Your task to perform on an android device: Search for "acer predator" on target.com, select the first entry, and add it to the cart. Image 0: 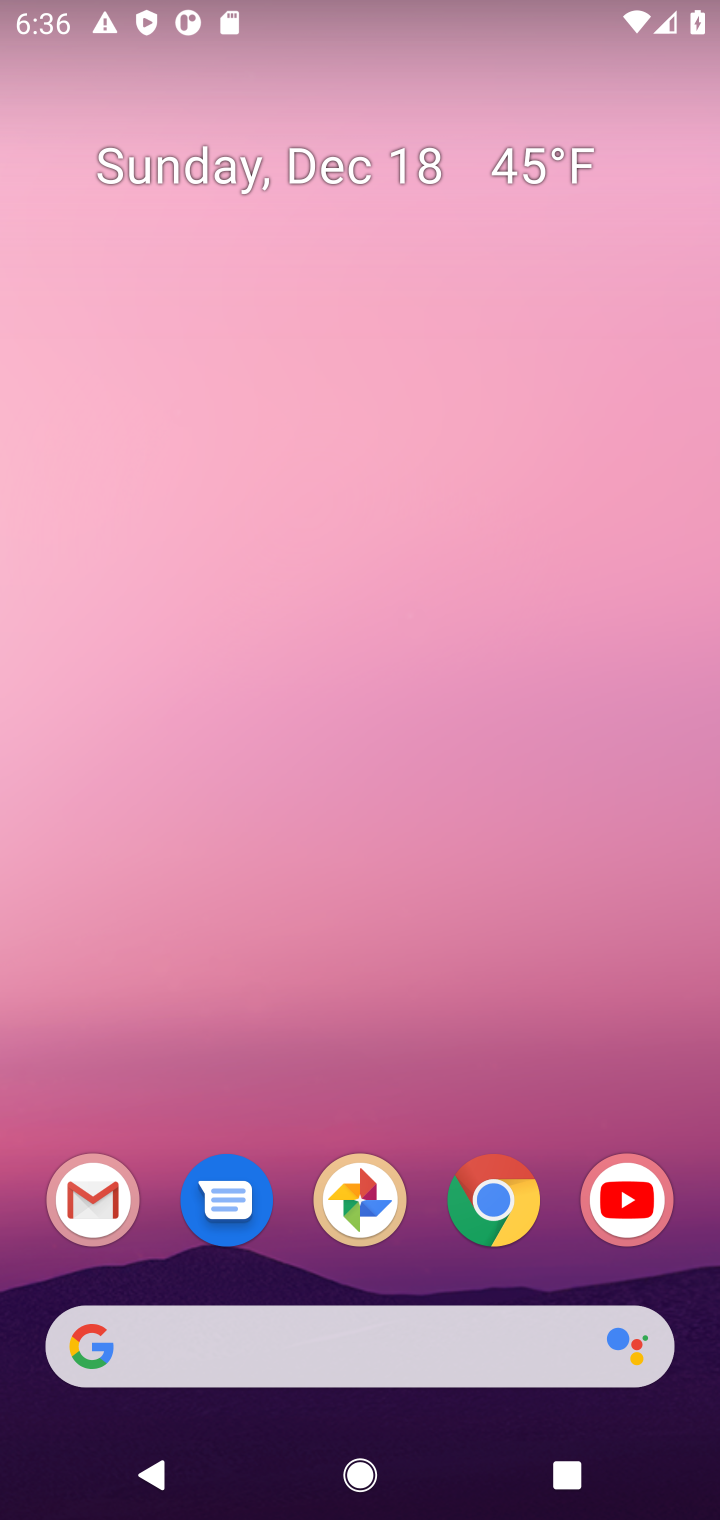
Step 0: click (495, 1198)
Your task to perform on an android device: Search for "acer predator" on target.com, select the first entry, and add it to the cart. Image 1: 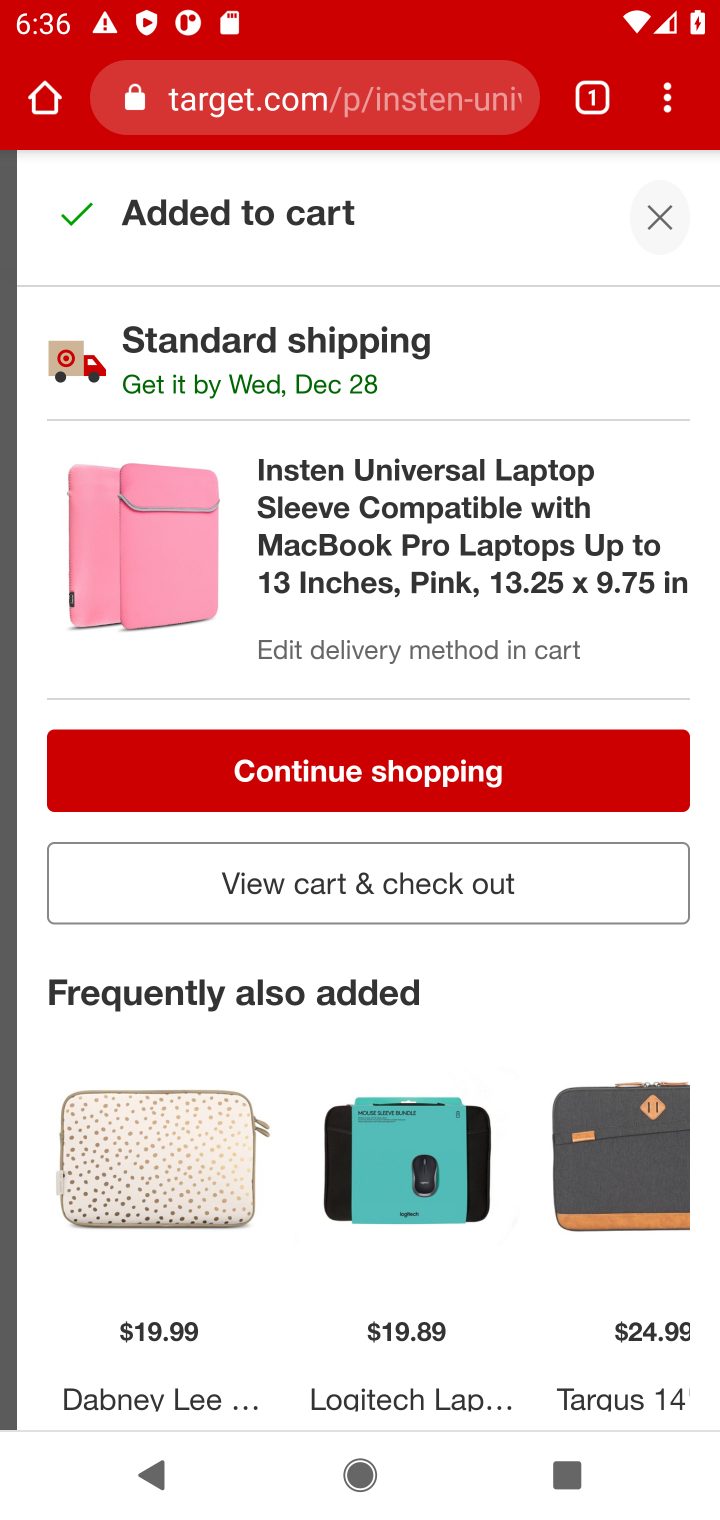
Step 1: click (672, 216)
Your task to perform on an android device: Search for "acer predator" on target.com, select the first entry, and add it to the cart. Image 2: 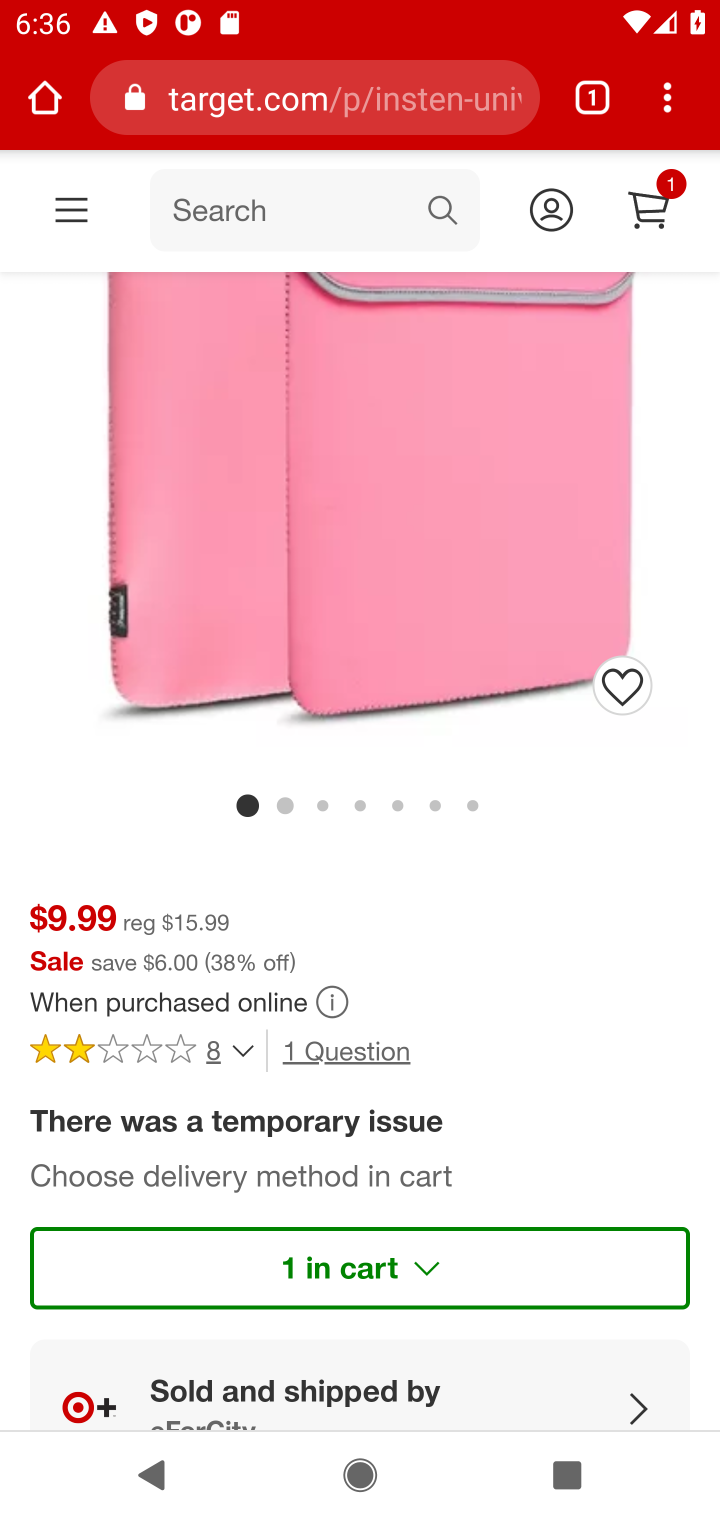
Step 2: click (220, 223)
Your task to perform on an android device: Search for "acer predator" on target.com, select the first entry, and add it to the cart. Image 3: 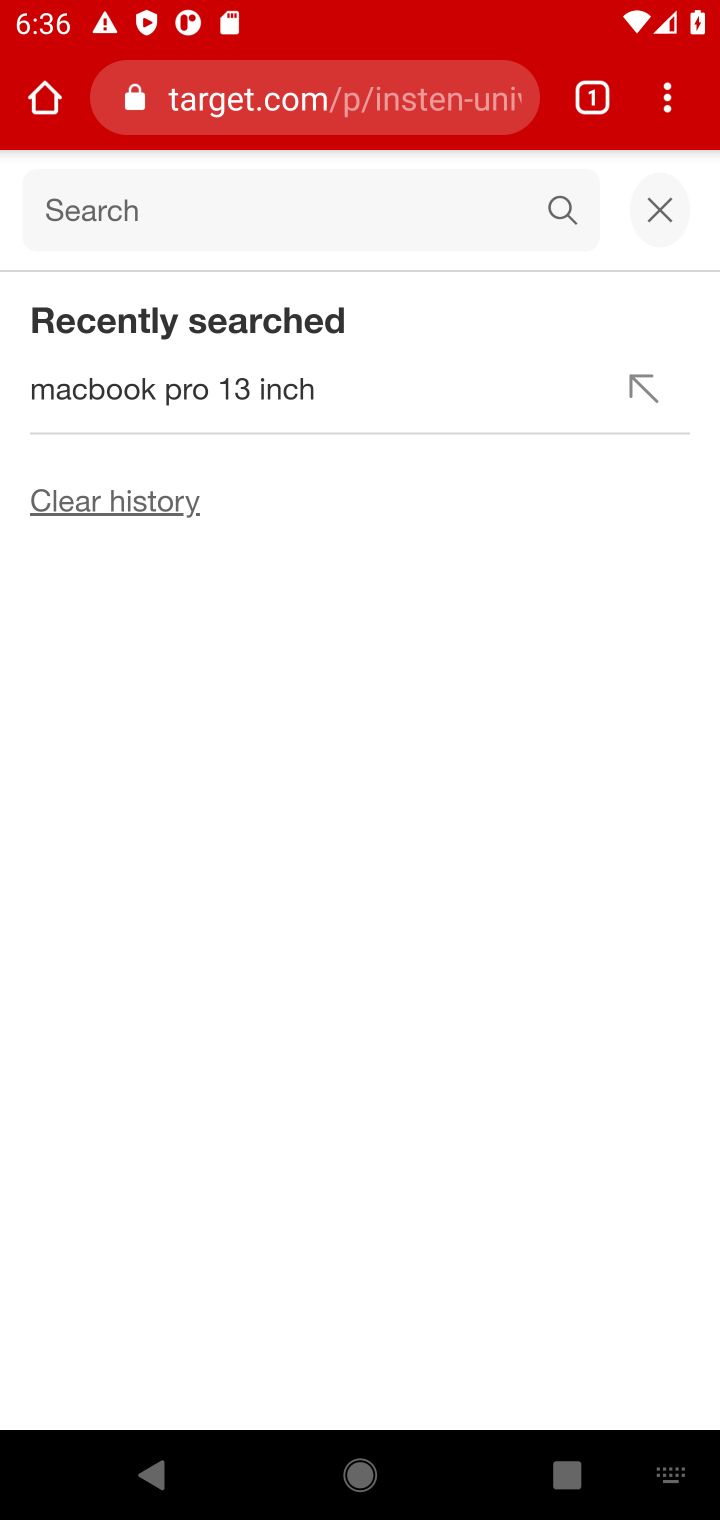
Step 3: type "acer predator"
Your task to perform on an android device: Search for "acer predator" on target.com, select the first entry, and add it to the cart. Image 4: 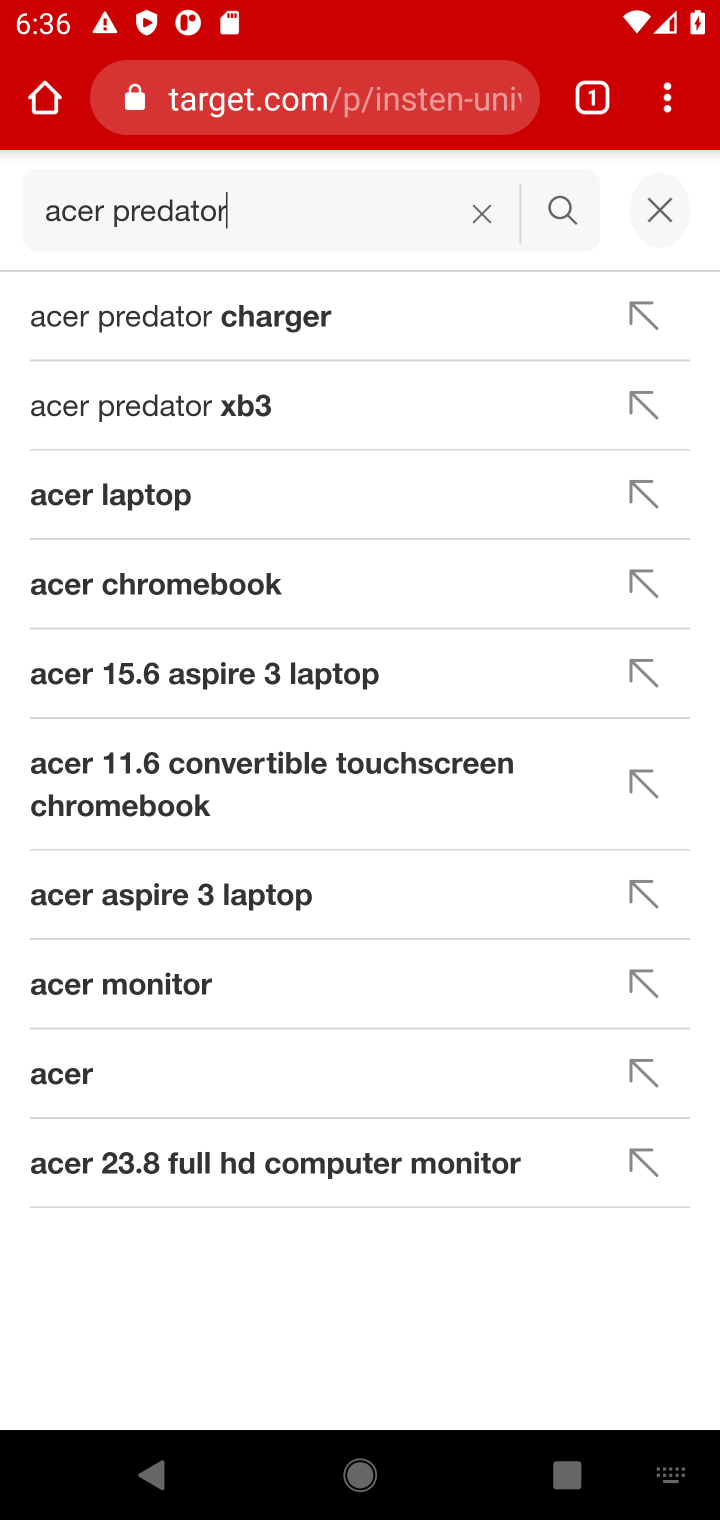
Step 4: click (553, 214)
Your task to perform on an android device: Search for "acer predator" on target.com, select the first entry, and add it to the cart. Image 5: 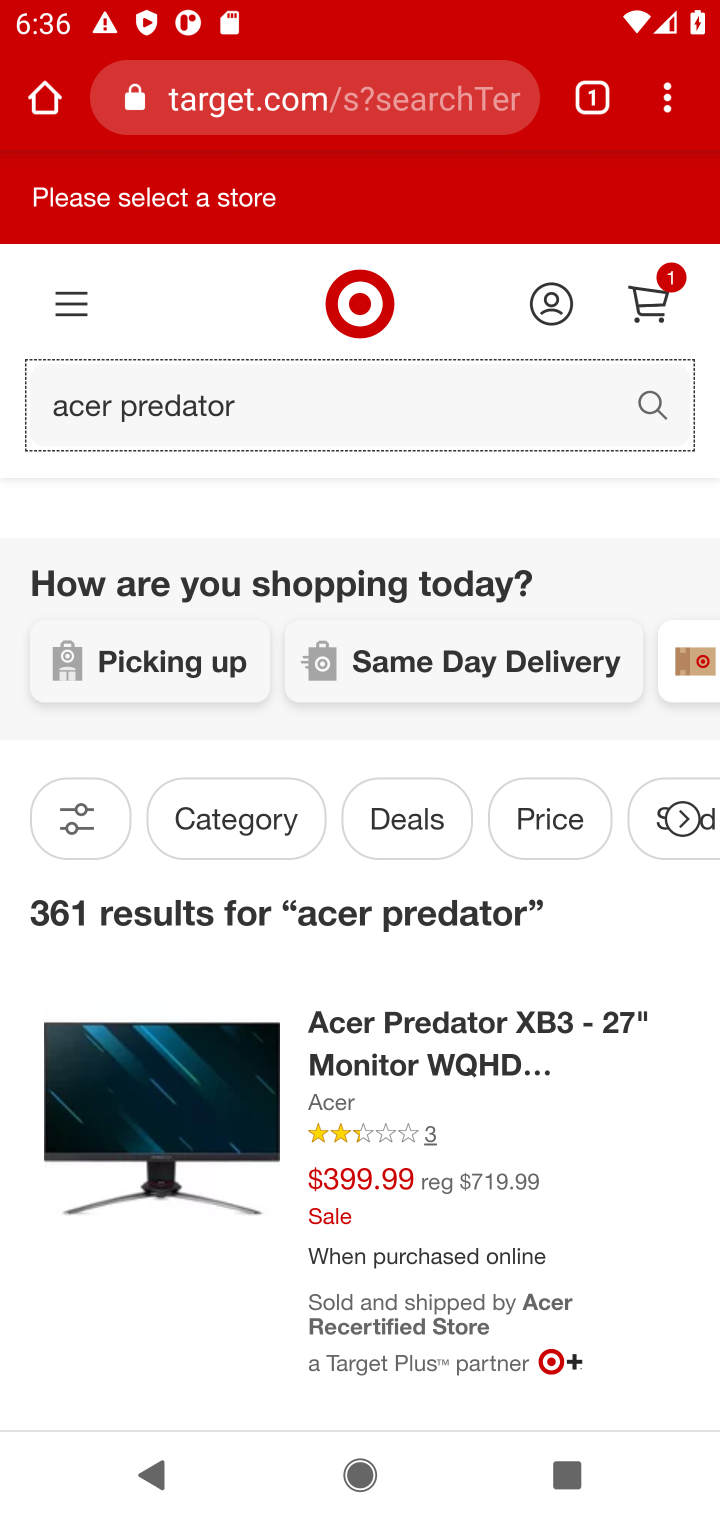
Step 5: drag from (202, 1029) to (202, 530)
Your task to perform on an android device: Search for "acer predator" on target.com, select the first entry, and add it to the cart. Image 6: 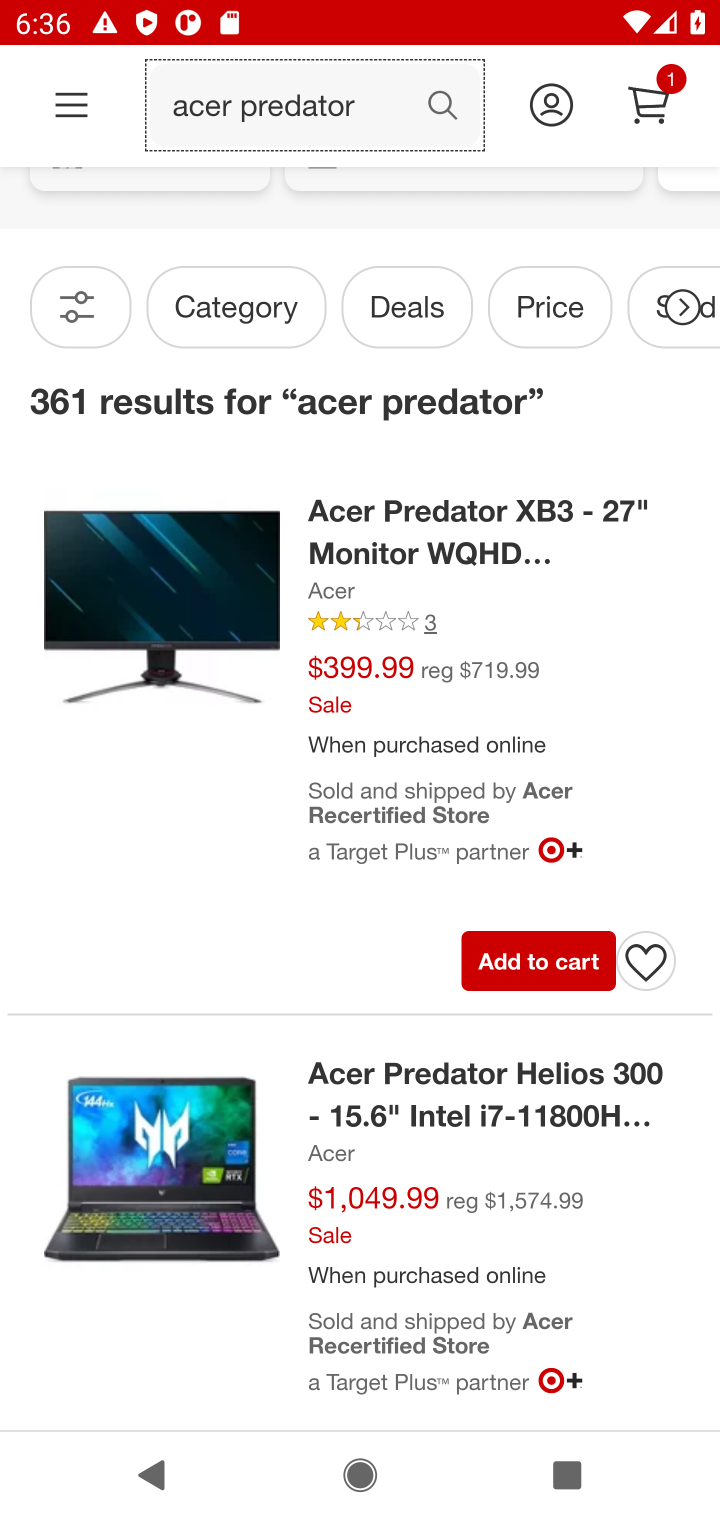
Step 6: click (551, 972)
Your task to perform on an android device: Search for "acer predator" on target.com, select the first entry, and add it to the cart. Image 7: 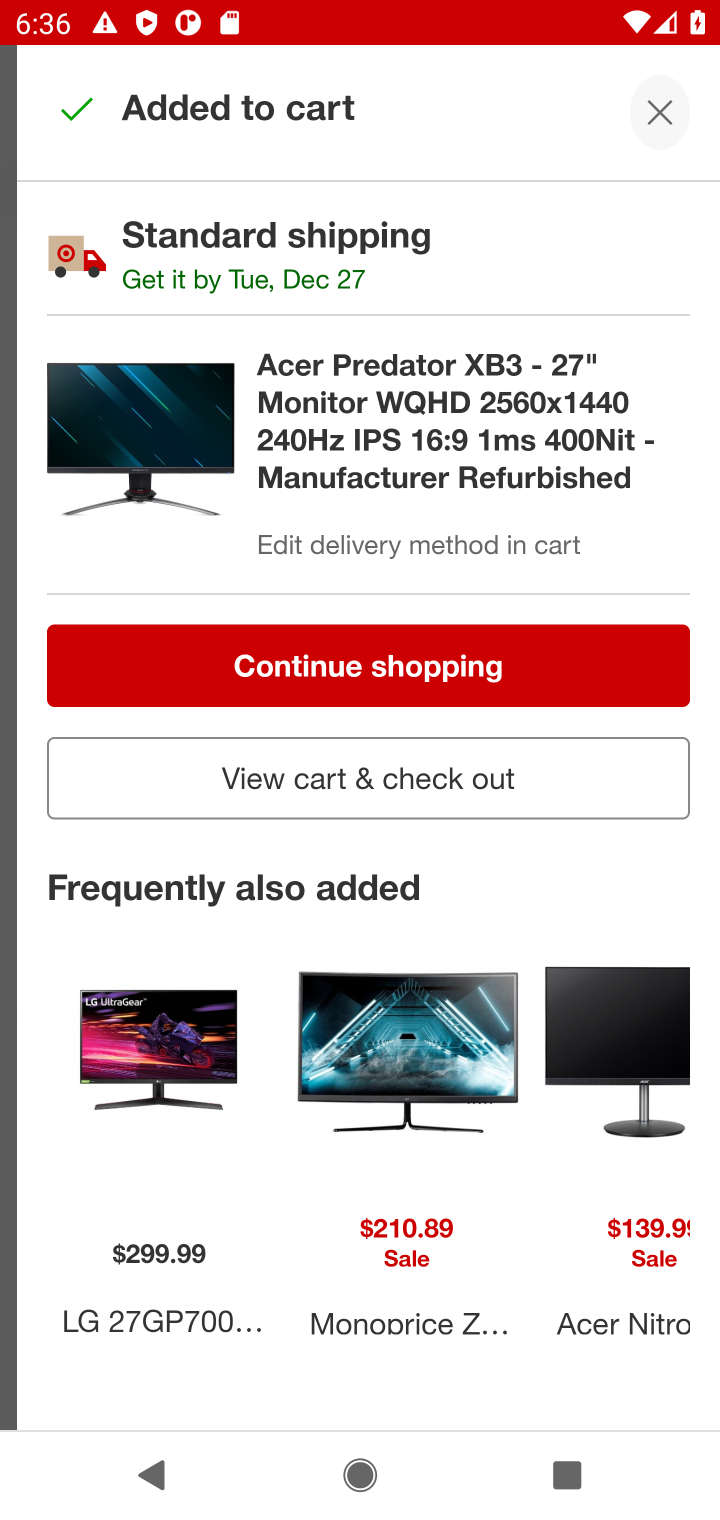
Step 7: task complete